Your task to perform on an android device: Search for sushi restaurants on Maps Image 0: 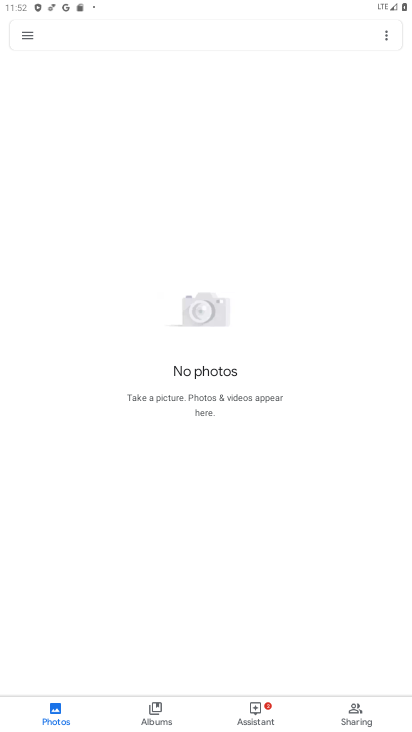
Step 0: press home button
Your task to perform on an android device: Search for sushi restaurants on Maps Image 1: 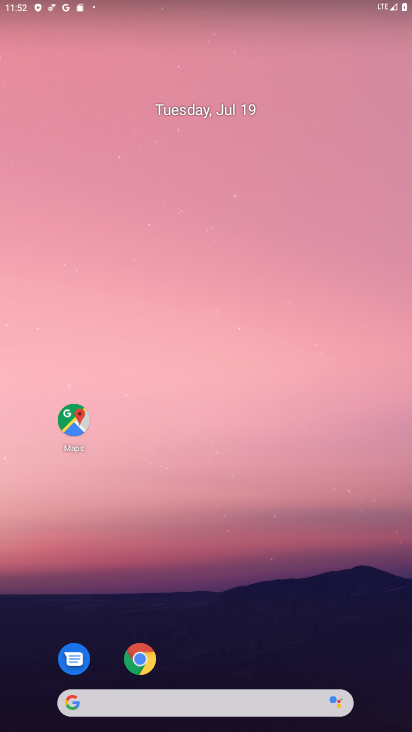
Step 1: drag from (278, 526) to (268, 108)
Your task to perform on an android device: Search for sushi restaurants on Maps Image 2: 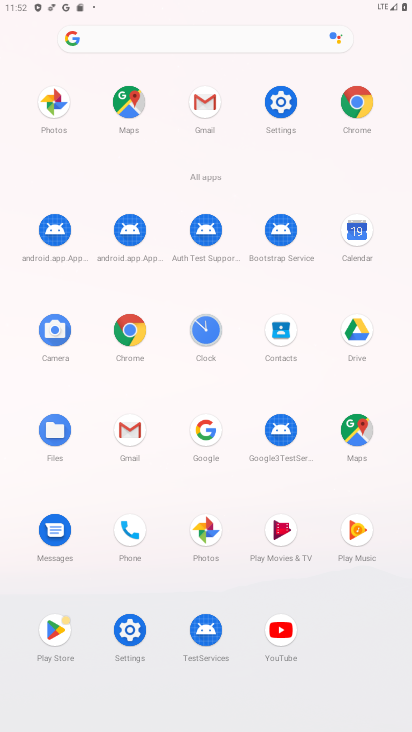
Step 2: click (365, 430)
Your task to perform on an android device: Search for sushi restaurants on Maps Image 3: 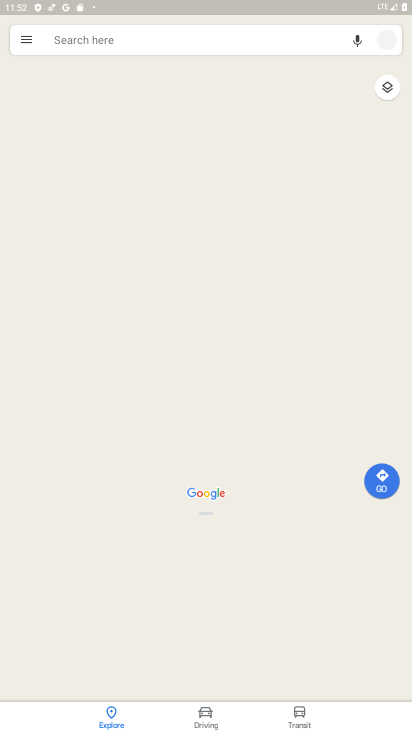
Step 3: click (202, 47)
Your task to perform on an android device: Search for sushi restaurants on Maps Image 4: 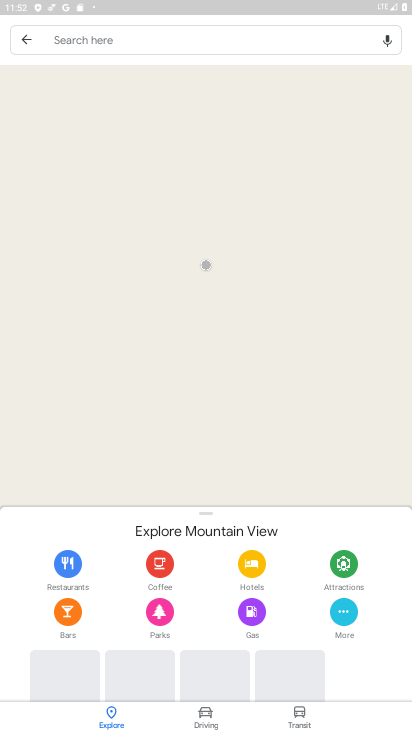
Step 4: click (124, 36)
Your task to perform on an android device: Search for sushi restaurants on Maps Image 5: 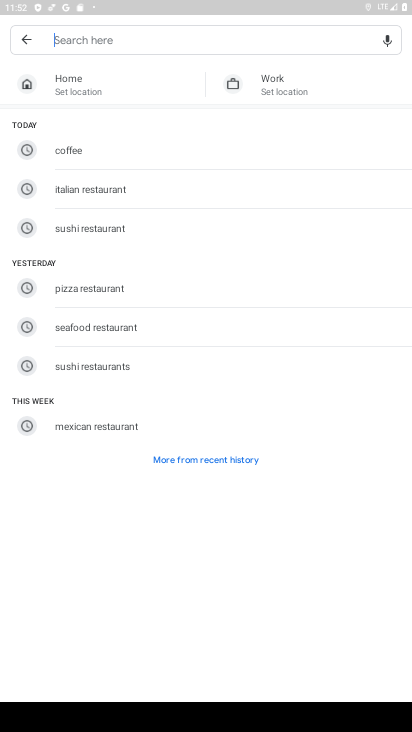
Step 5: click (112, 369)
Your task to perform on an android device: Search for sushi restaurants on Maps Image 6: 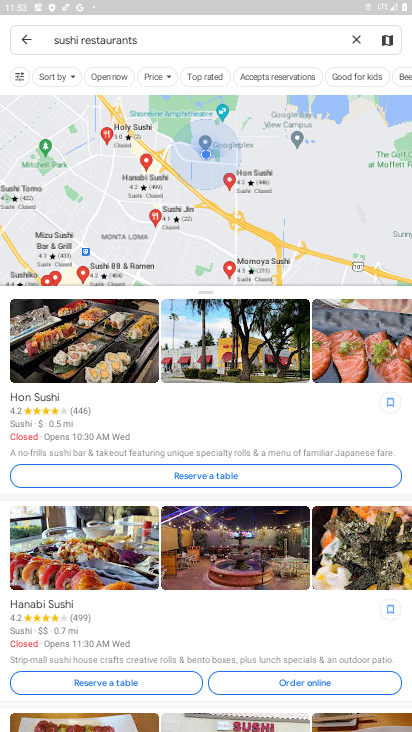
Step 6: task complete